Your task to perform on an android device: Open the phone app and click the voicemail tab. Image 0: 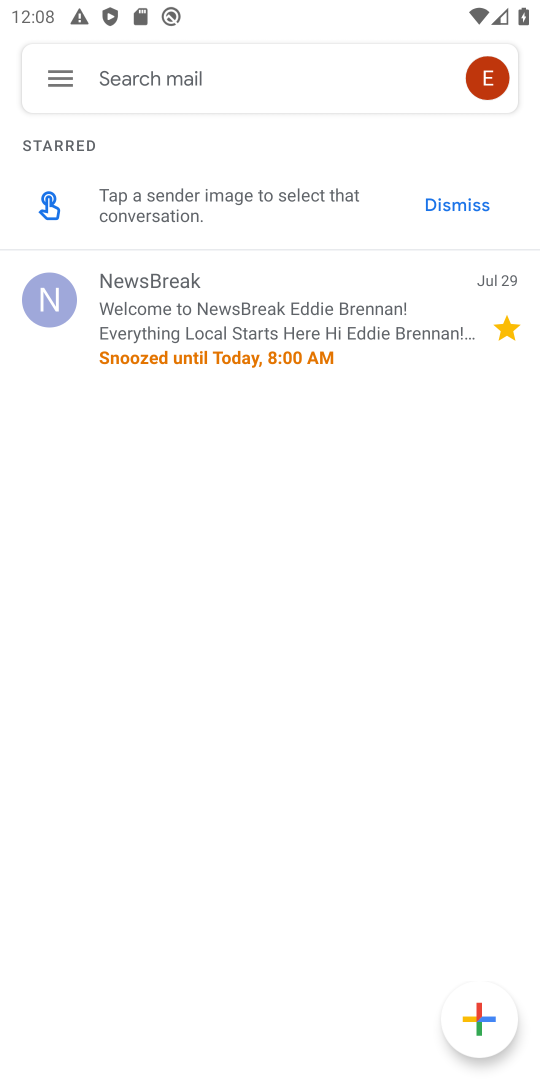
Step 0: press home button
Your task to perform on an android device: Open the phone app and click the voicemail tab. Image 1: 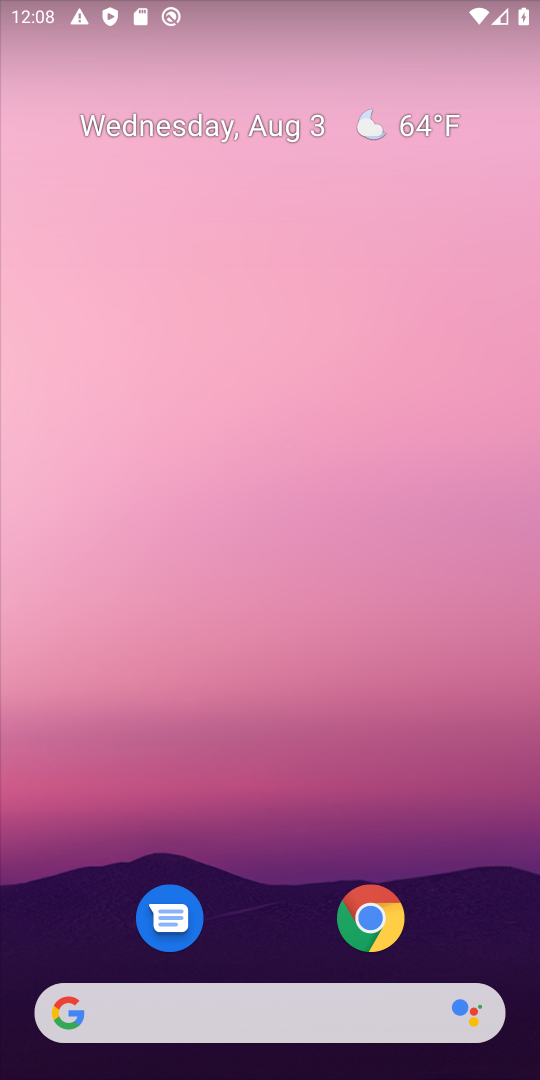
Step 1: drag from (324, 728) to (363, 27)
Your task to perform on an android device: Open the phone app and click the voicemail tab. Image 2: 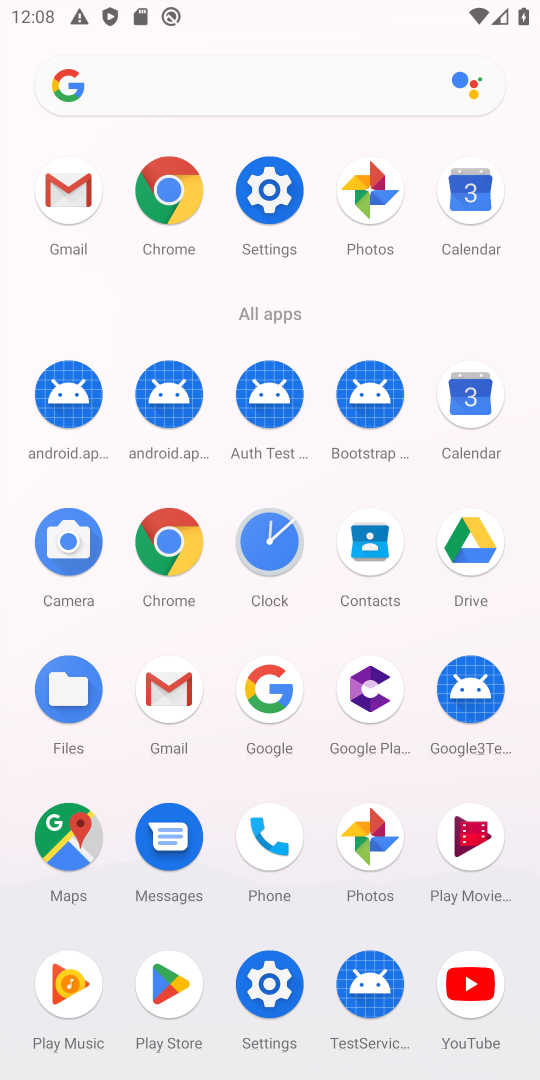
Step 2: click (264, 834)
Your task to perform on an android device: Open the phone app and click the voicemail tab. Image 3: 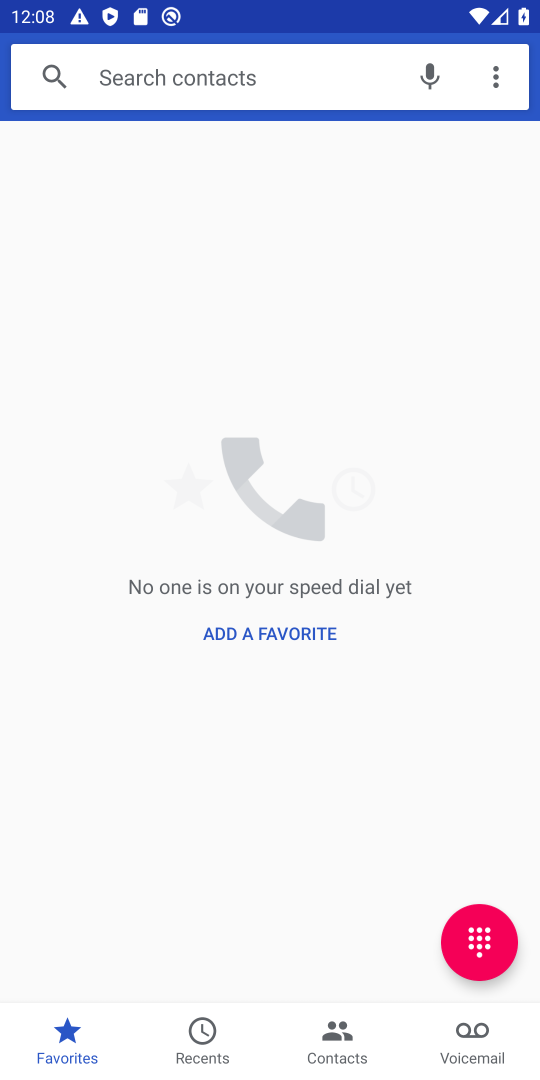
Step 3: click (465, 1035)
Your task to perform on an android device: Open the phone app and click the voicemail tab. Image 4: 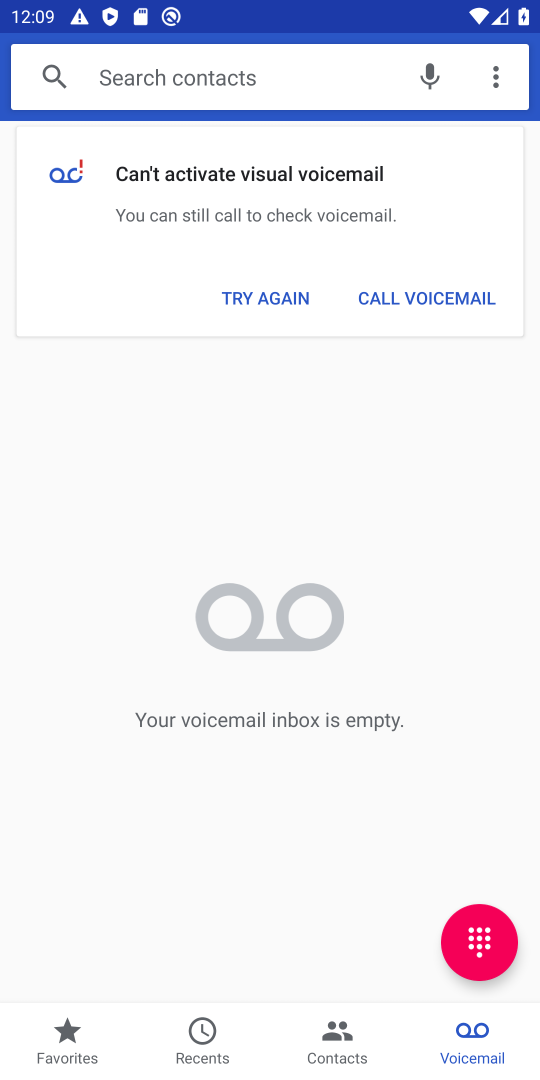
Step 4: task complete